Your task to perform on an android device: open chrome and create a bookmark for the current page Image 0: 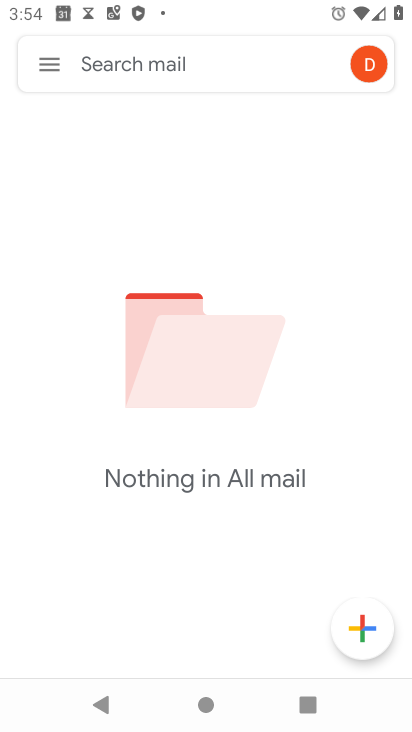
Step 0: press home button
Your task to perform on an android device: open chrome and create a bookmark for the current page Image 1: 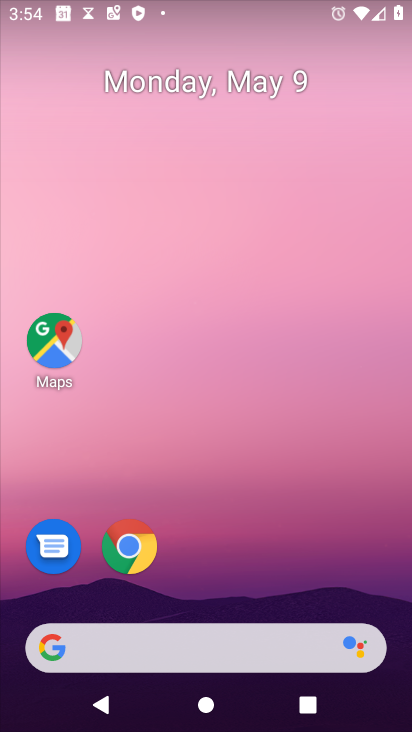
Step 1: drag from (334, 492) to (292, 133)
Your task to perform on an android device: open chrome and create a bookmark for the current page Image 2: 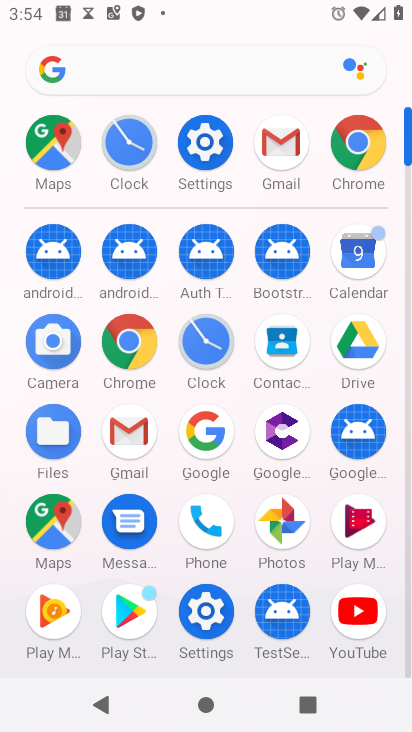
Step 2: click (370, 142)
Your task to perform on an android device: open chrome and create a bookmark for the current page Image 3: 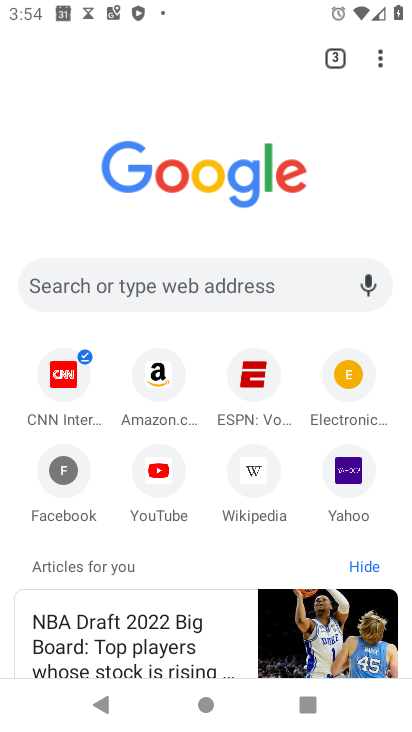
Step 3: task complete